Your task to perform on an android device: Go to accessibility settings Image 0: 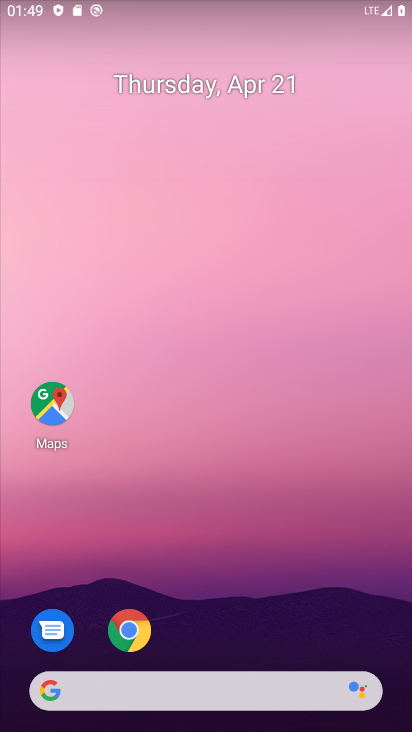
Step 0: drag from (327, 544) to (281, 165)
Your task to perform on an android device: Go to accessibility settings Image 1: 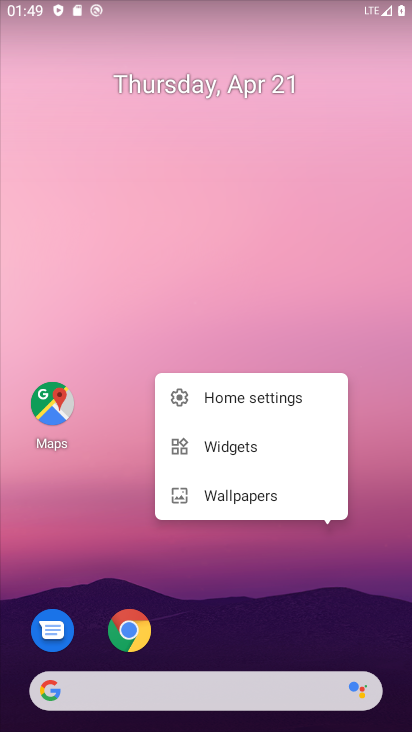
Step 1: click (108, 495)
Your task to perform on an android device: Go to accessibility settings Image 2: 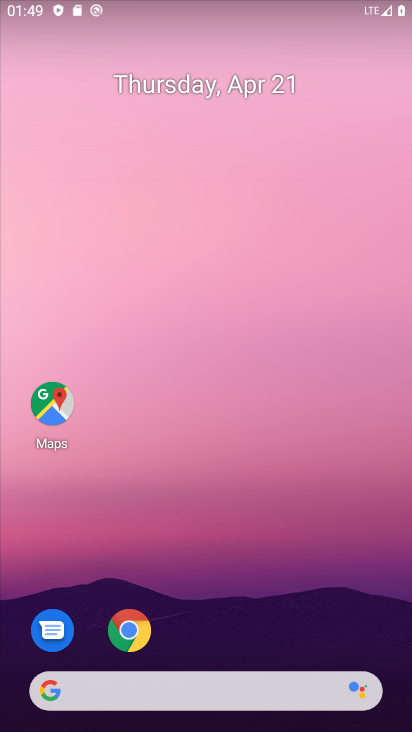
Step 2: drag from (214, 586) to (279, 15)
Your task to perform on an android device: Go to accessibility settings Image 3: 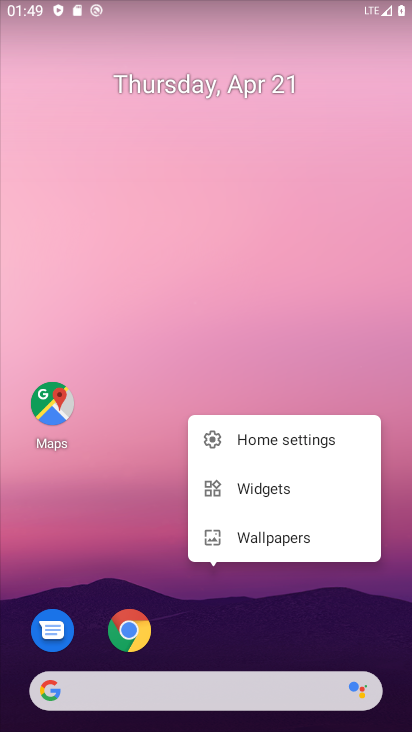
Step 3: click (135, 522)
Your task to perform on an android device: Go to accessibility settings Image 4: 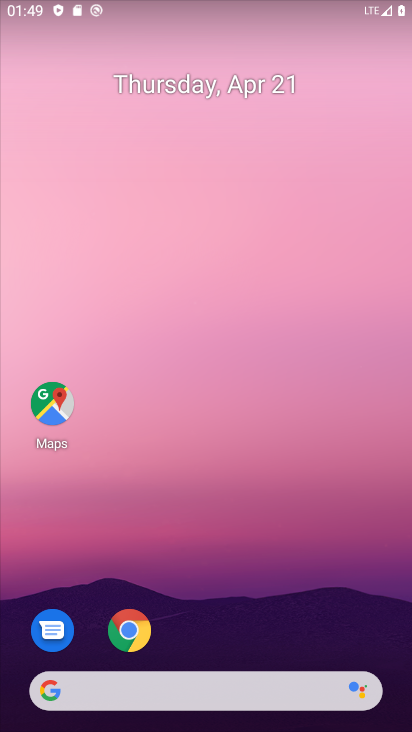
Step 4: drag from (197, 602) to (247, 95)
Your task to perform on an android device: Go to accessibility settings Image 5: 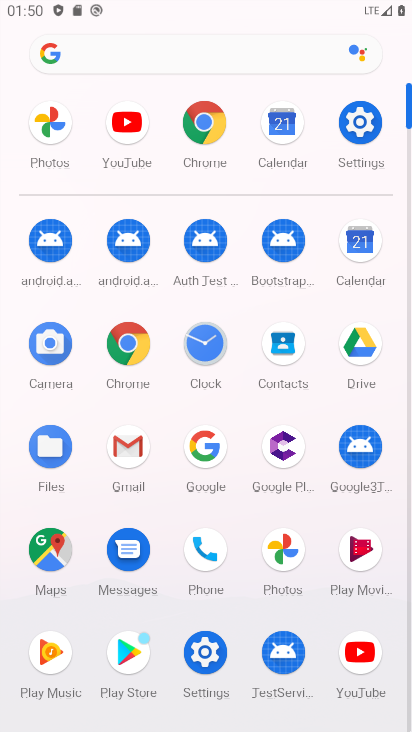
Step 5: click (372, 115)
Your task to perform on an android device: Go to accessibility settings Image 6: 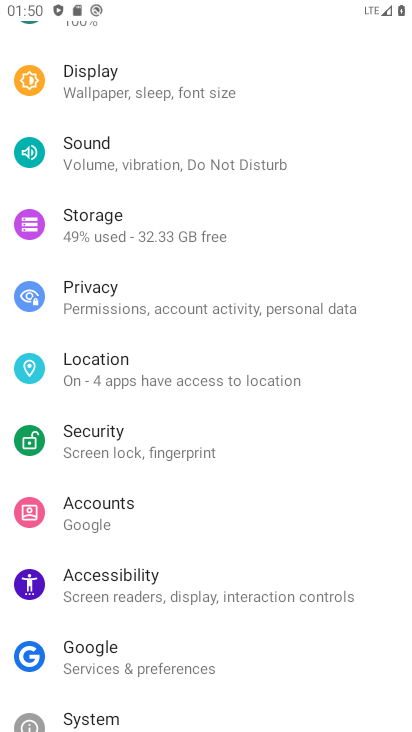
Step 6: click (253, 598)
Your task to perform on an android device: Go to accessibility settings Image 7: 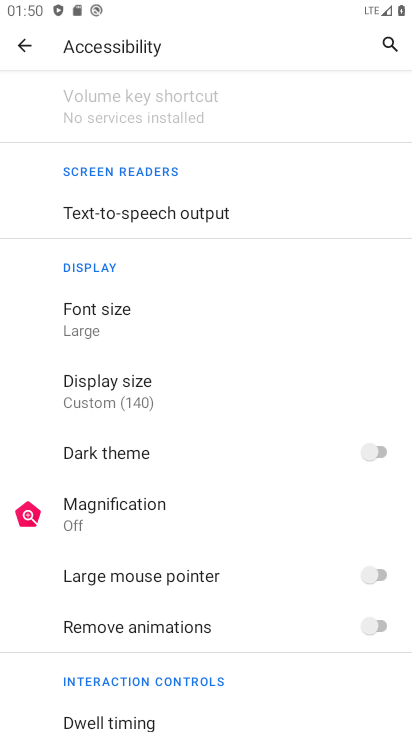
Step 7: task complete